Your task to perform on an android device: empty trash in google photos Image 0: 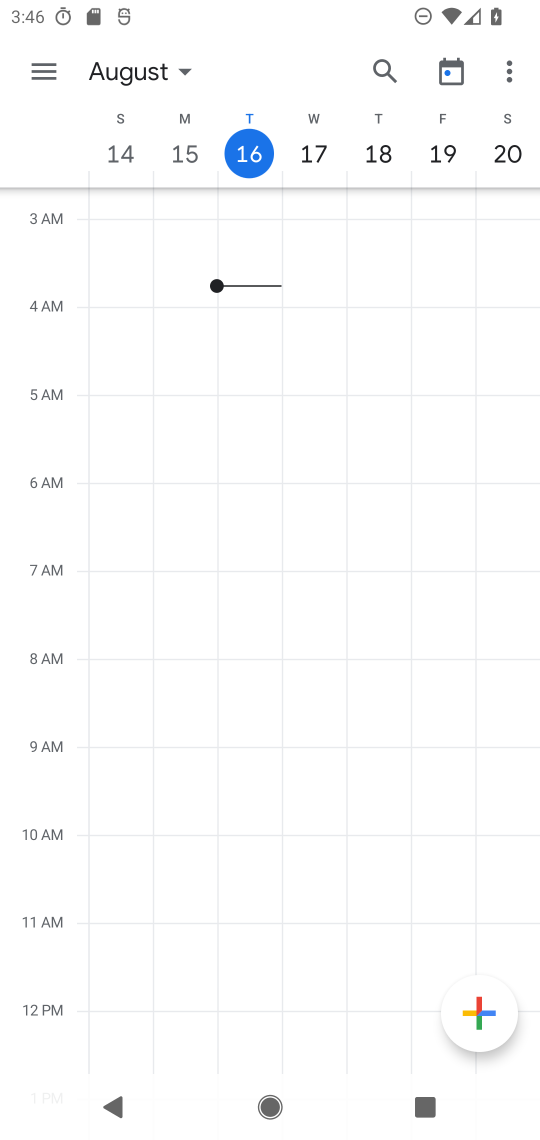
Step 0: press home button
Your task to perform on an android device: empty trash in google photos Image 1: 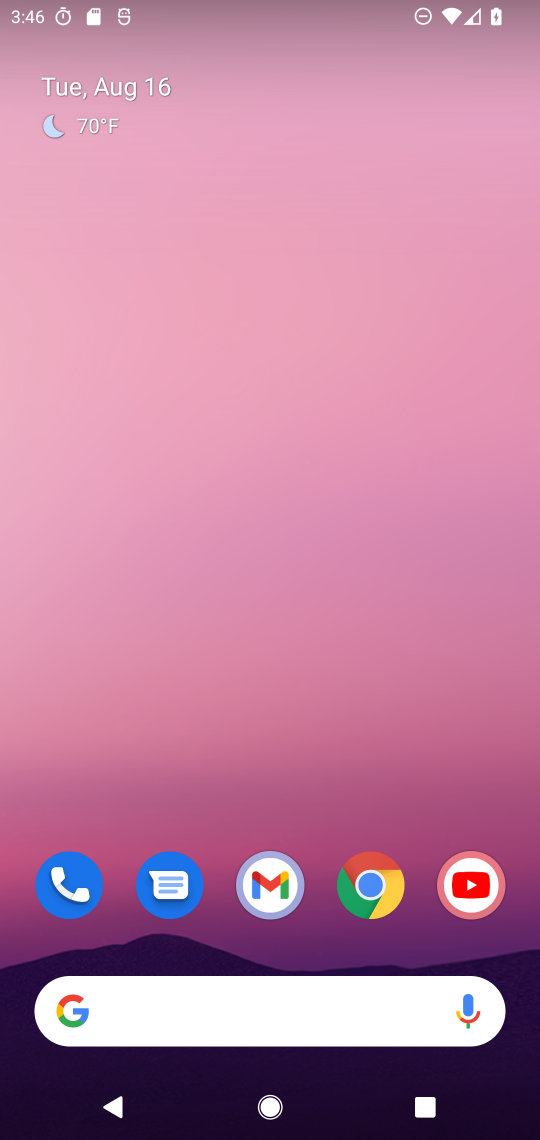
Step 1: drag from (210, 1003) to (331, 173)
Your task to perform on an android device: empty trash in google photos Image 2: 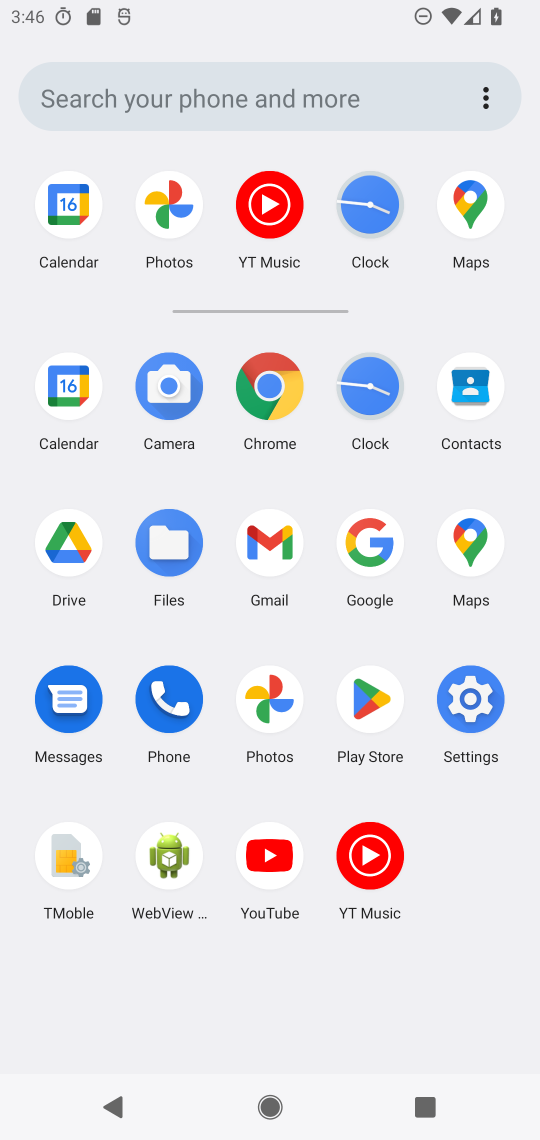
Step 2: click (294, 547)
Your task to perform on an android device: empty trash in google photos Image 3: 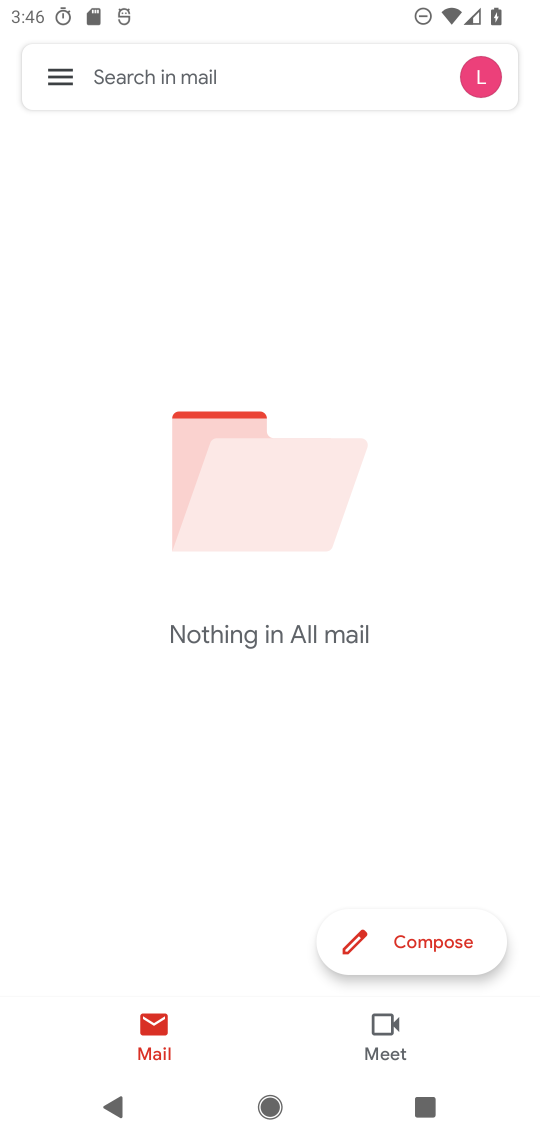
Step 3: click (61, 69)
Your task to perform on an android device: empty trash in google photos Image 4: 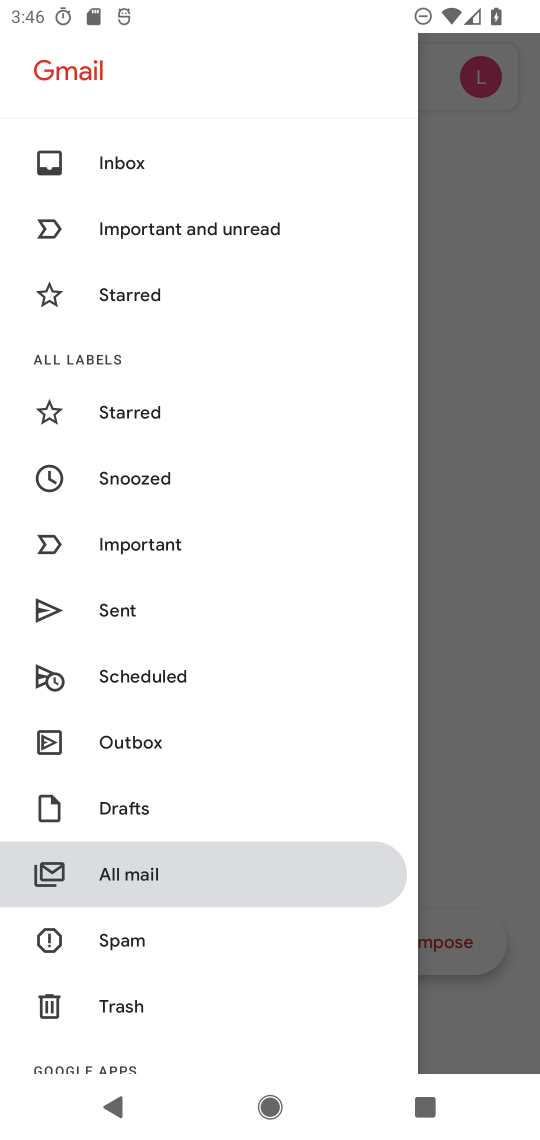
Step 4: drag from (134, 951) to (254, 495)
Your task to perform on an android device: empty trash in google photos Image 5: 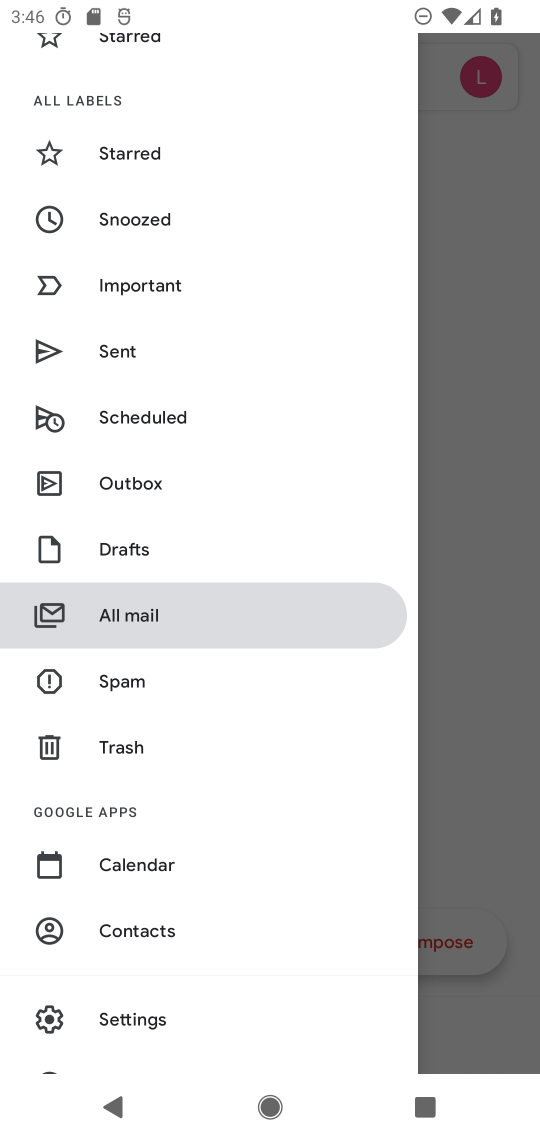
Step 5: click (148, 753)
Your task to perform on an android device: empty trash in google photos Image 6: 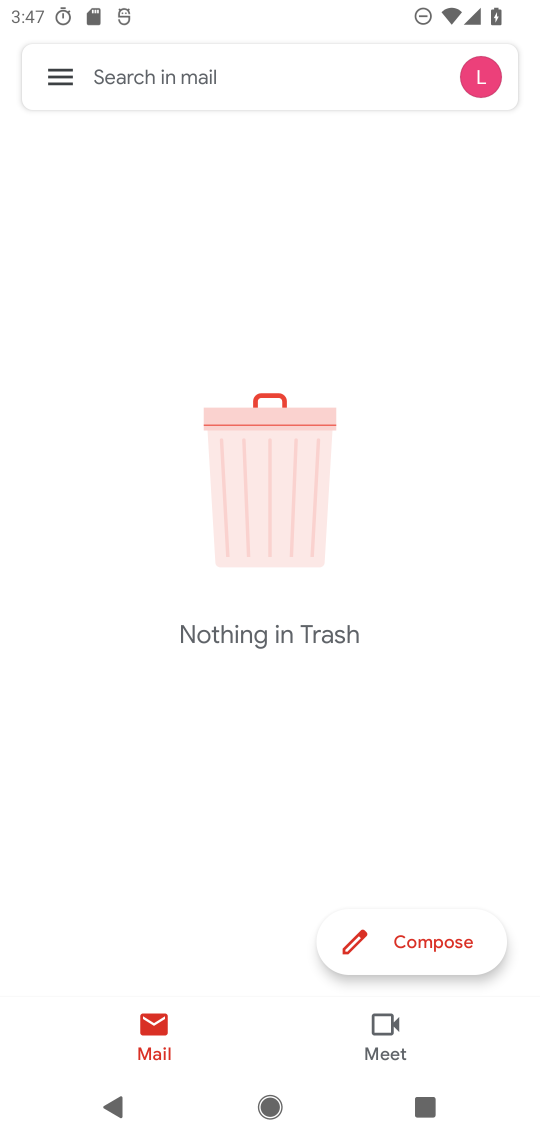
Step 6: task complete